Your task to perform on an android device: change keyboard looks Image 0: 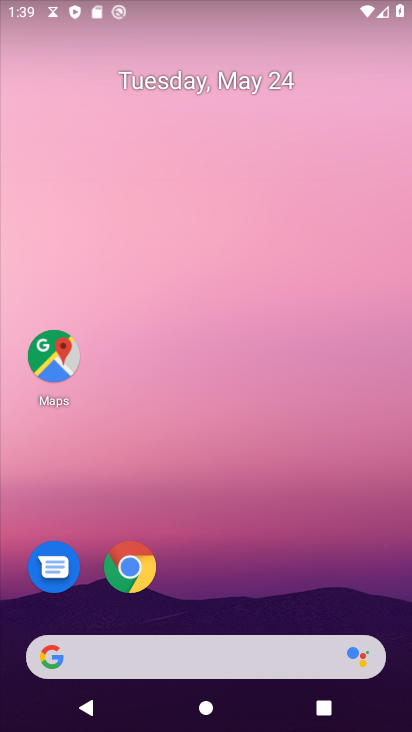
Step 0: drag from (269, 604) to (317, 291)
Your task to perform on an android device: change keyboard looks Image 1: 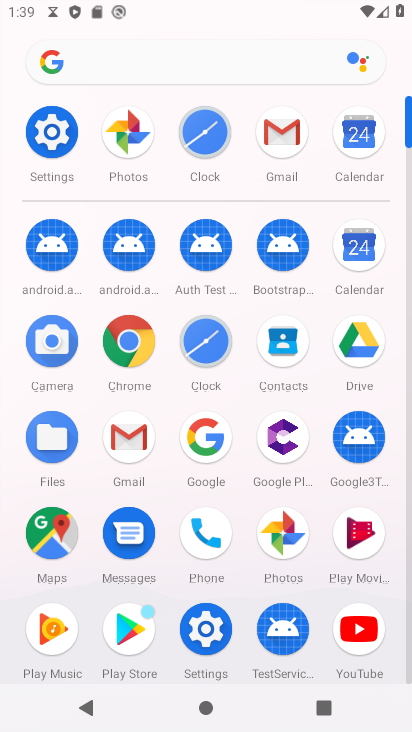
Step 1: click (219, 643)
Your task to perform on an android device: change keyboard looks Image 2: 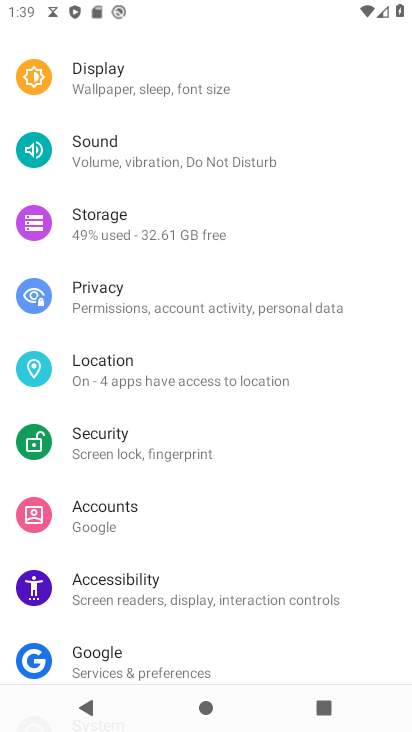
Step 2: drag from (139, 492) to (184, 338)
Your task to perform on an android device: change keyboard looks Image 3: 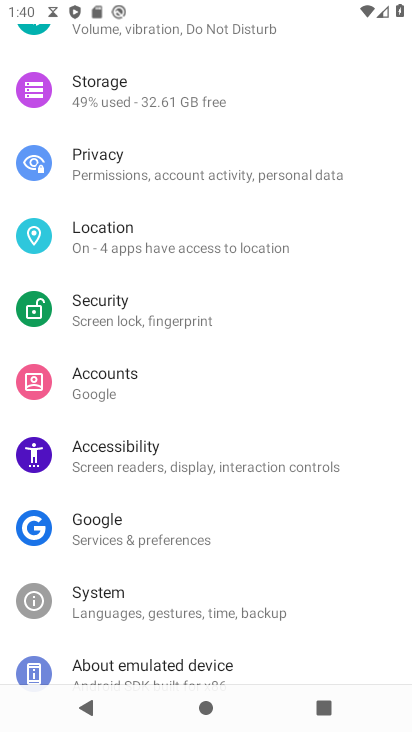
Step 3: click (165, 596)
Your task to perform on an android device: change keyboard looks Image 4: 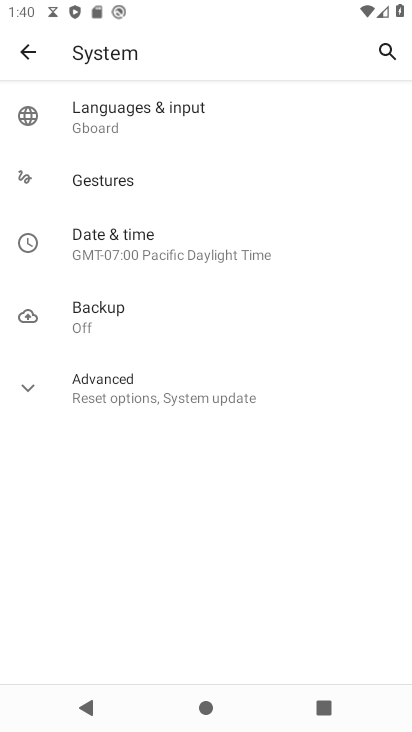
Step 4: click (131, 104)
Your task to perform on an android device: change keyboard looks Image 5: 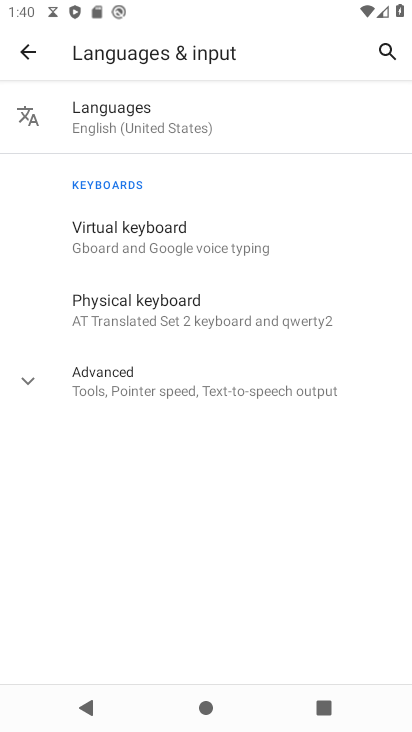
Step 5: click (138, 239)
Your task to perform on an android device: change keyboard looks Image 6: 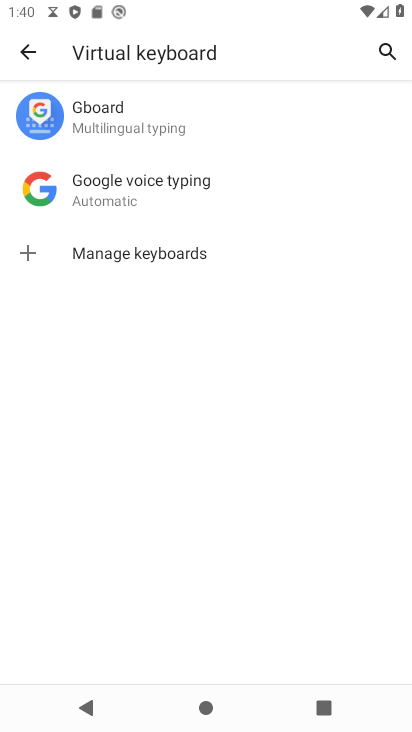
Step 6: click (133, 134)
Your task to perform on an android device: change keyboard looks Image 7: 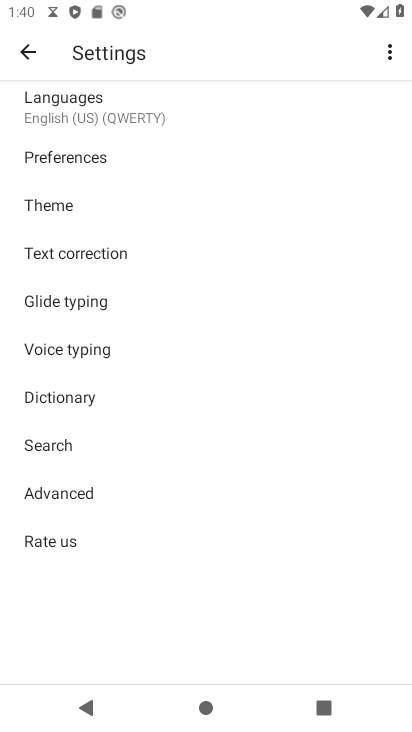
Step 7: click (84, 210)
Your task to perform on an android device: change keyboard looks Image 8: 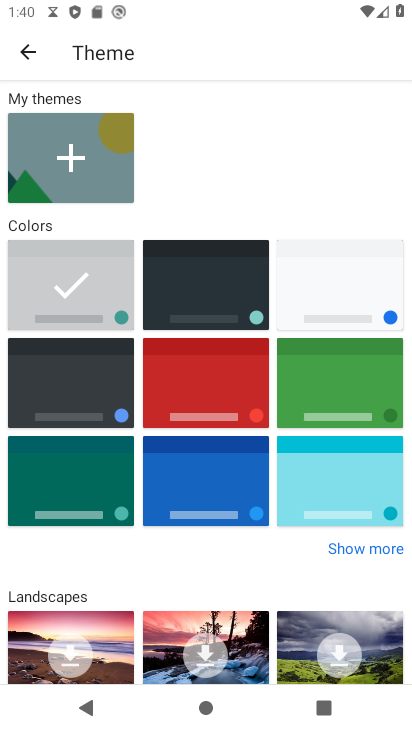
Step 8: click (178, 294)
Your task to perform on an android device: change keyboard looks Image 9: 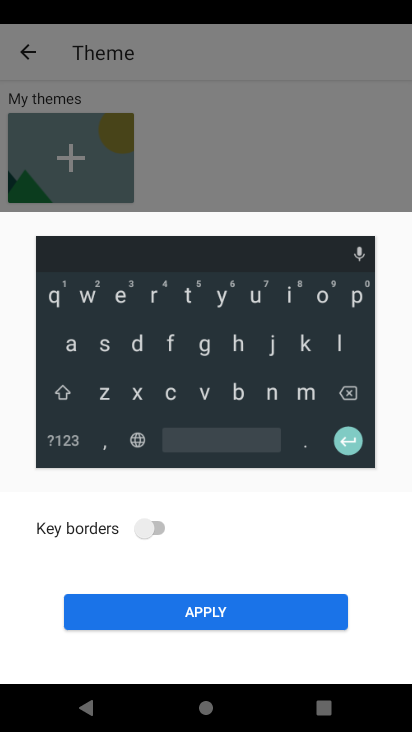
Step 9: click (262, 614)
Your task to perform on an android device: change keyboard looks Image 10: 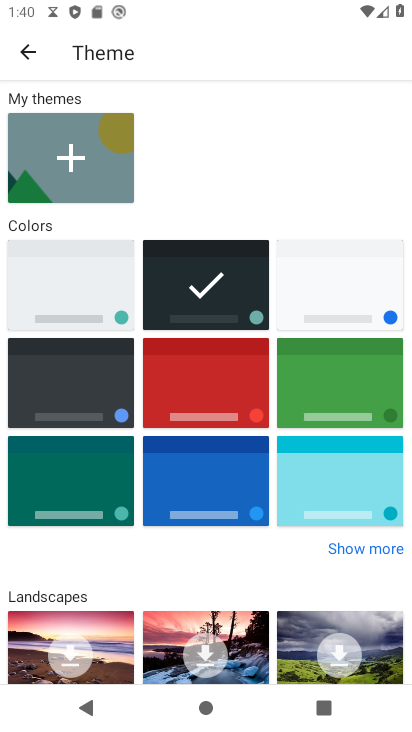
Step 10: task complete